Your task to perform on an android device: toggle translation in the chrome app Image 0: 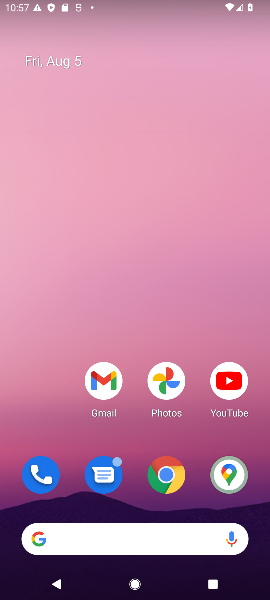
Step 0: click (174, 483)
Your task to perform on an android device: toggle translation in the chrome app Image 1: 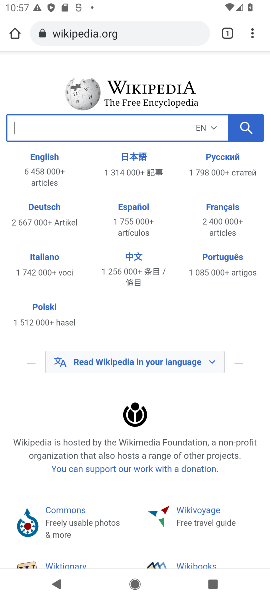
Step 1: click (247, 29)
Your task to perform on an android device: toggle translation in the chrome app Image 2: 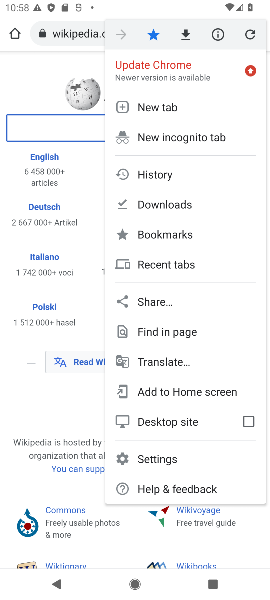
Step 2: click (158, 464)
Your task to perform on an android device: toggle translation in the chrome app Image 3: 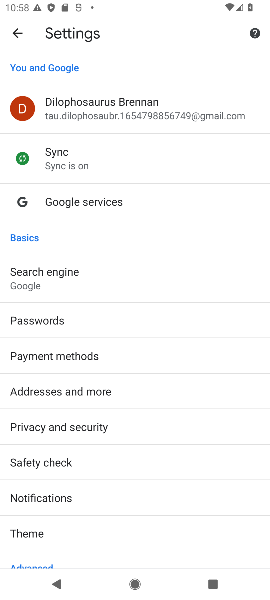
Step 3: drag from (106, 497) to (103, 264)
Your task to perform on an android device: toggle translation in the chrome app Image 4: 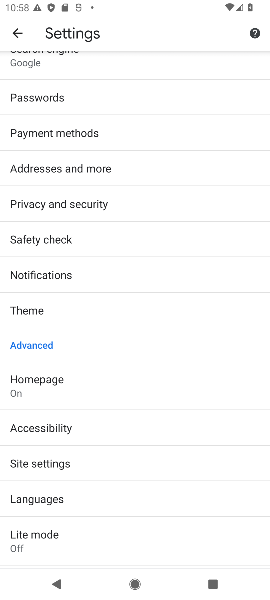
Step 4: click (54, 498)
Your task to perform on an android device: toggle translation in the chrome app Image 5: 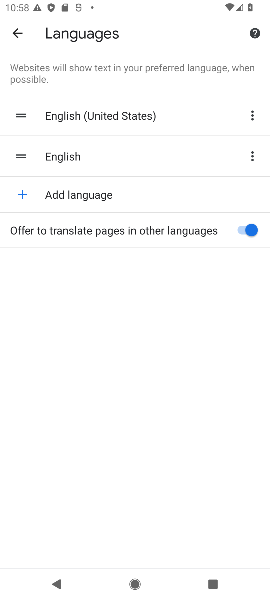
Step 5: click (219, 221)
Your task to perform on an android device: toggle translation in the chrome app Image 6: 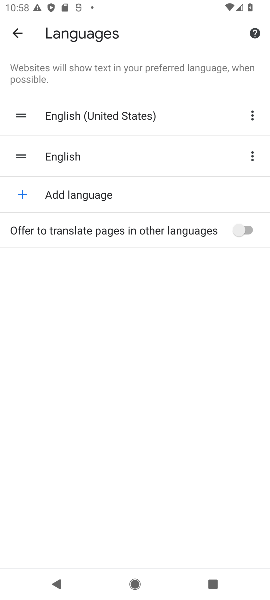
Step 6: task complete